Your task to perform on an android device: install app "Yahoo Mail" Image 0: 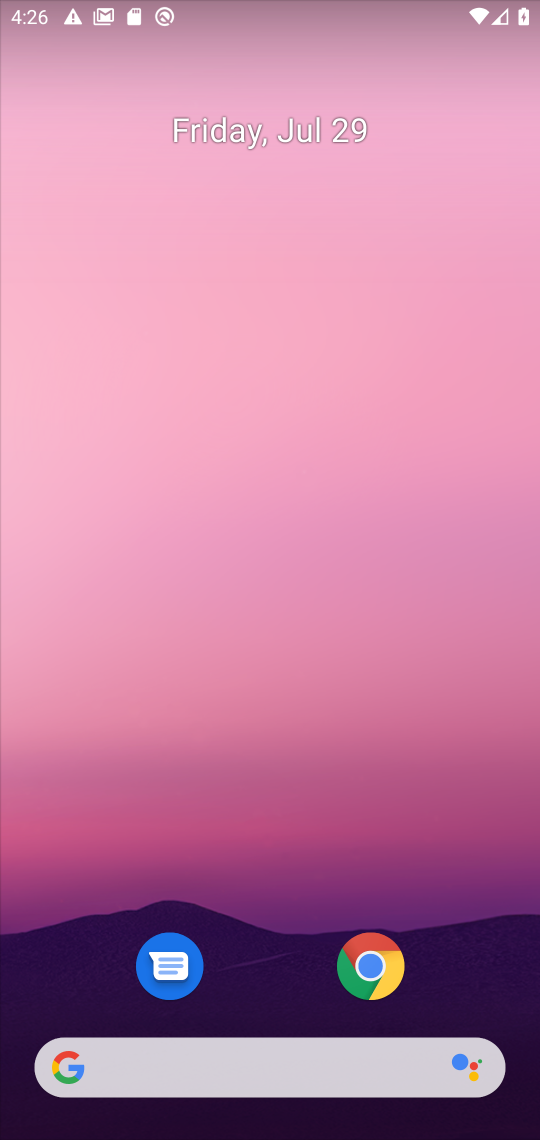
Step 0: drag from (277, 1007) to (238, 7)
Your task to perform on an android device: install app "Yahoo Mail" Image 1: 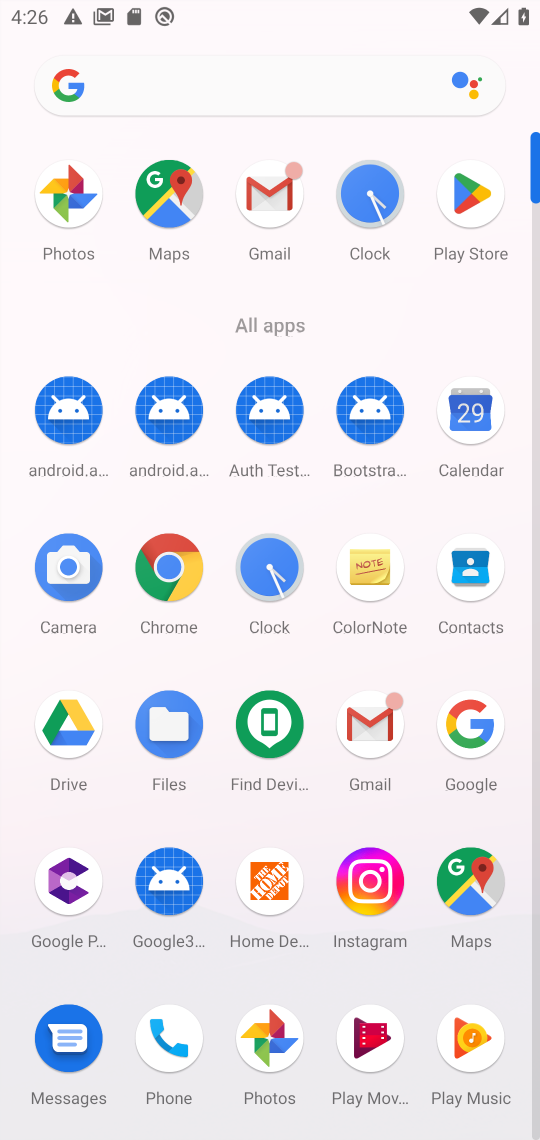
Step 1: drag from (220, 860) to (257, 286)
Your task to perform on an android device: install app "Yahoo Mail" Image 2: 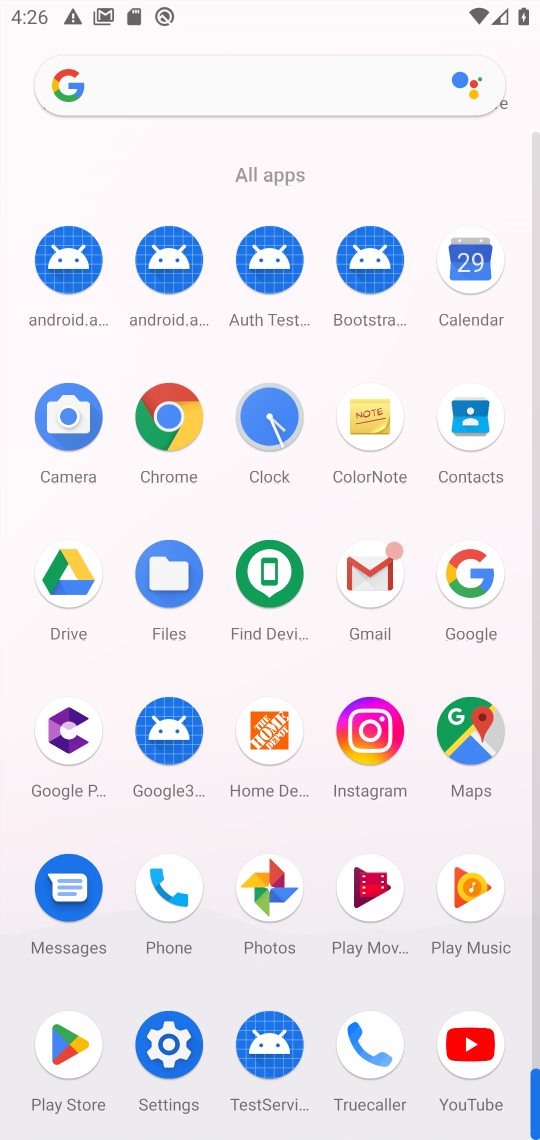
Step 2: click (66, 1049)
Your task to perform on an android device: install app "Yahoo Mail" Image 3: 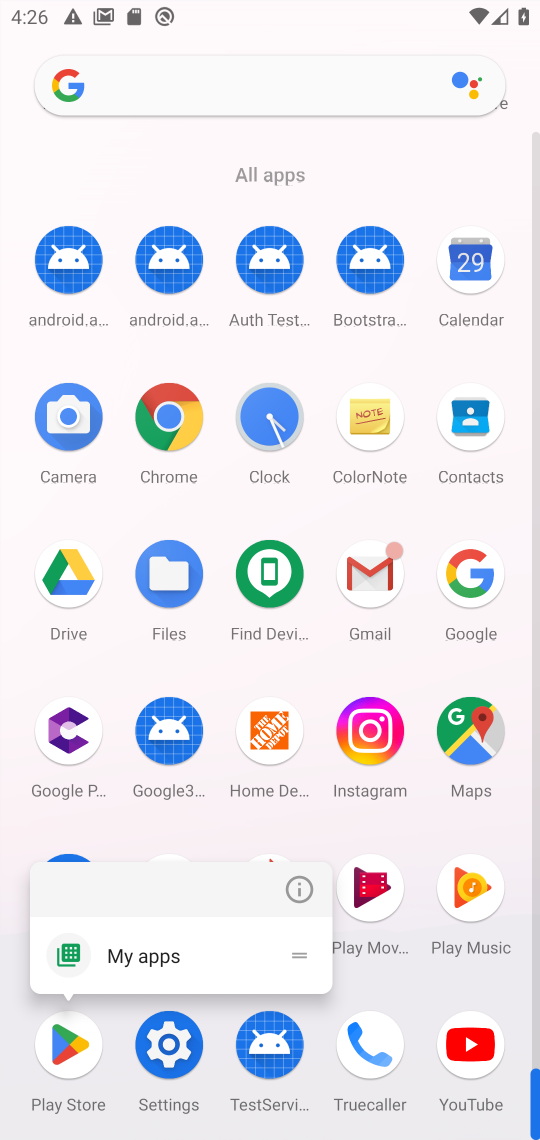
Step 3: click (57, 1058)
Your task to perform on an android device: install app "Yahoo Mail" Image 4: 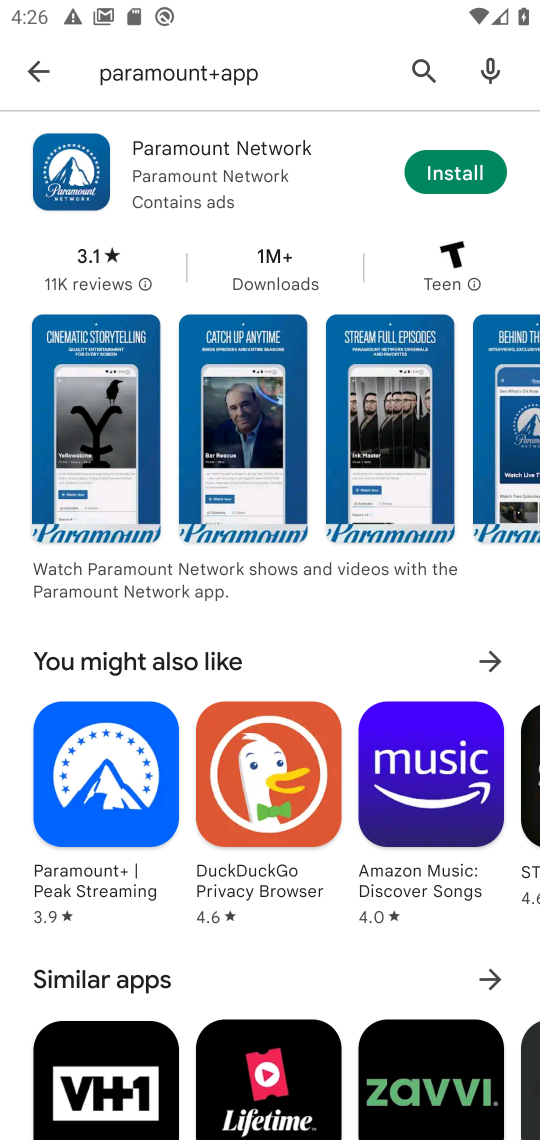
Step 4: click (236, 76)
Your task to perform on an android device: install app "Yahoo Mail" Image 5: 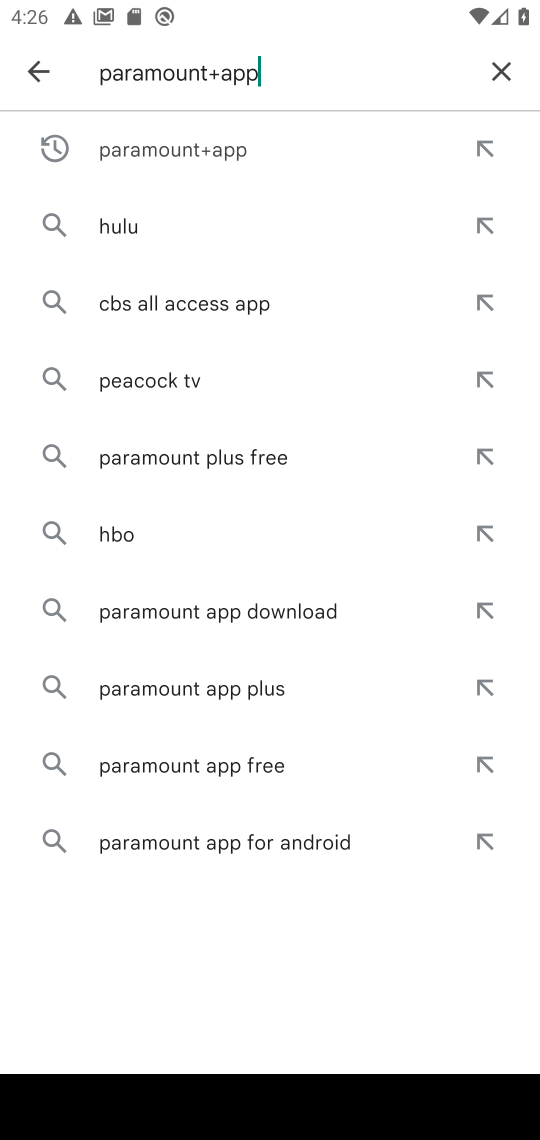
Step 5: click (490, 66)
Your task to perform on an android device: install app "Yahoo Mail" Image 6: 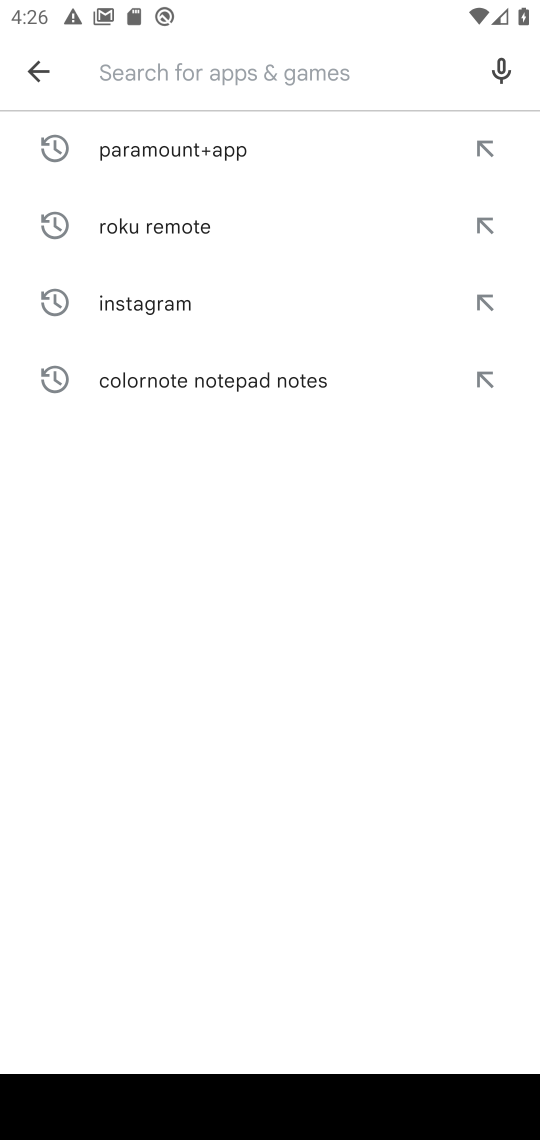
Step 6: type "yahoo mail"
Your task to perform on an android device: install app "Yahoo Mail" Image 7: 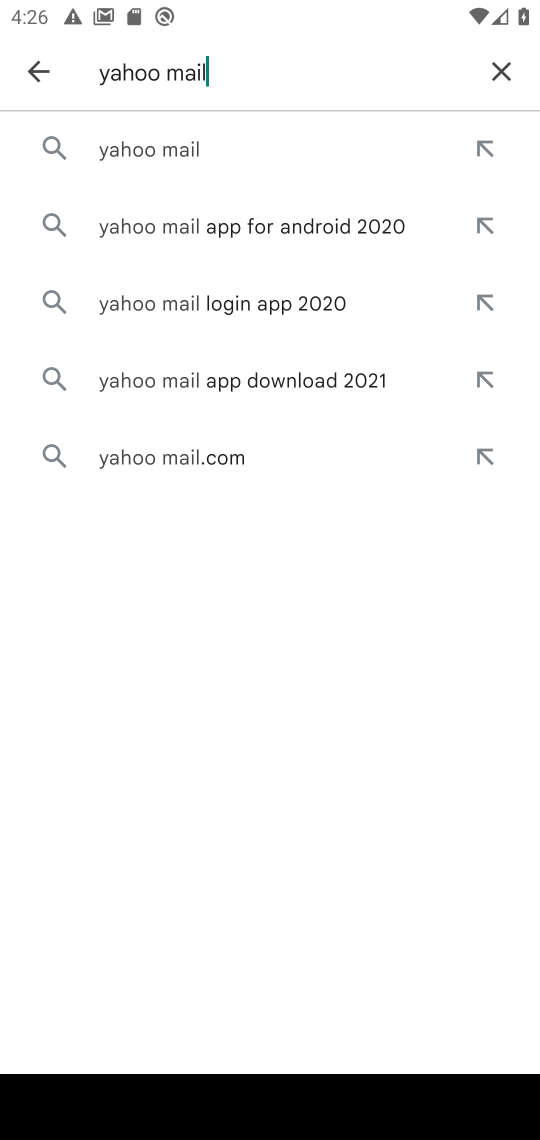
Step 7: click (153, 165)
Your task to perform on an android device: install app "Yahoo Mail" Image 8: 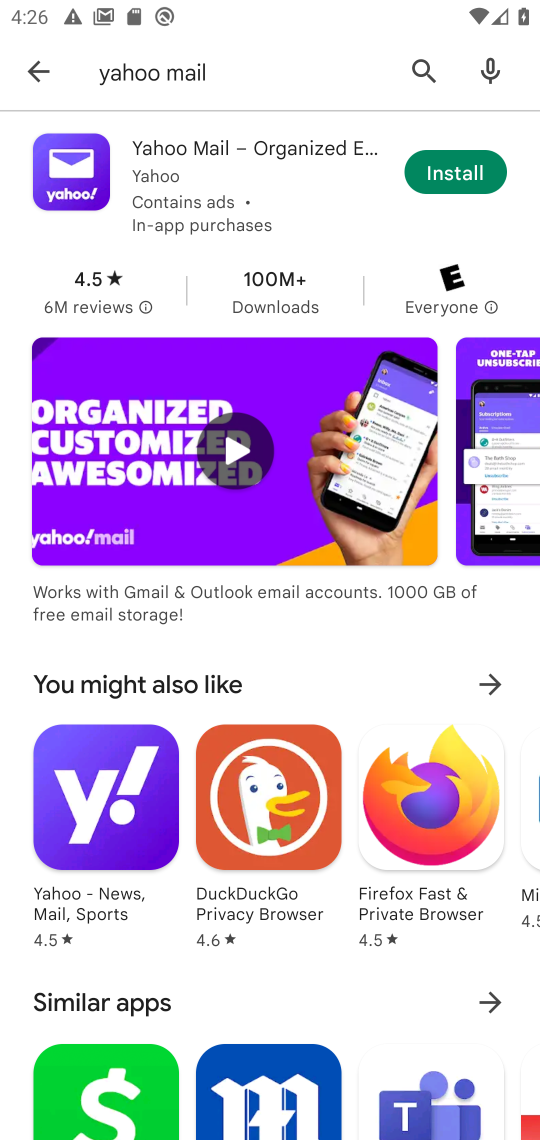
Step 8: click (460, 149)
Your task to perform on an android device: install app "Yahoo Mail" Image 9: 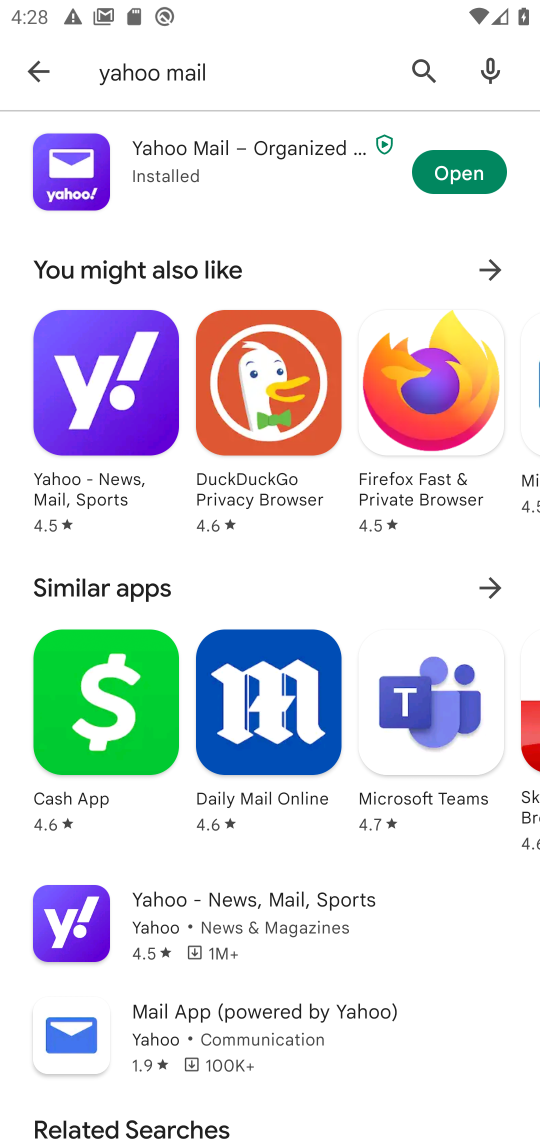
Step 9: task complete